Your task to perform on an android device: Search for vegetarian restaurants on Maps Image 0: 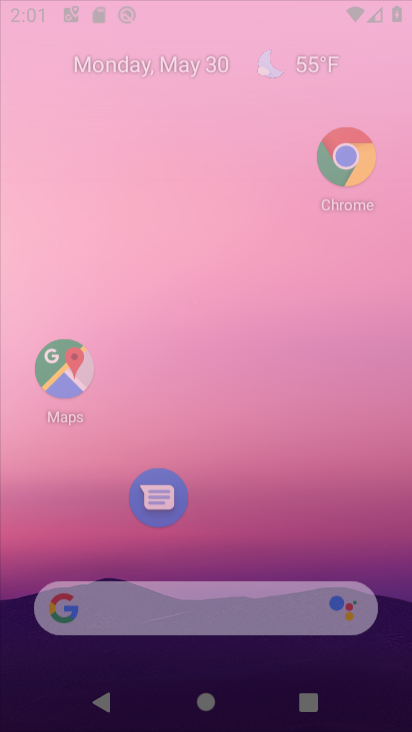
Step 0: click (223, 204)
Your task to perform on an android device: Search for vegetarian restaurants on Maps Image 1: 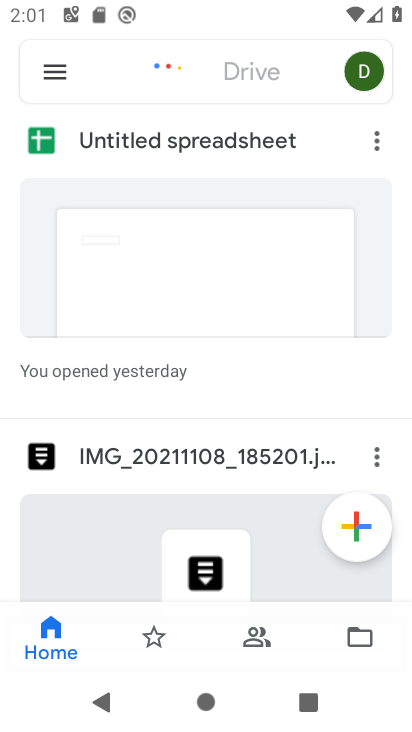
Step 1: press home button
Your task to perform on an android device: Search for vegetarian restaurants on Maps Image 2: 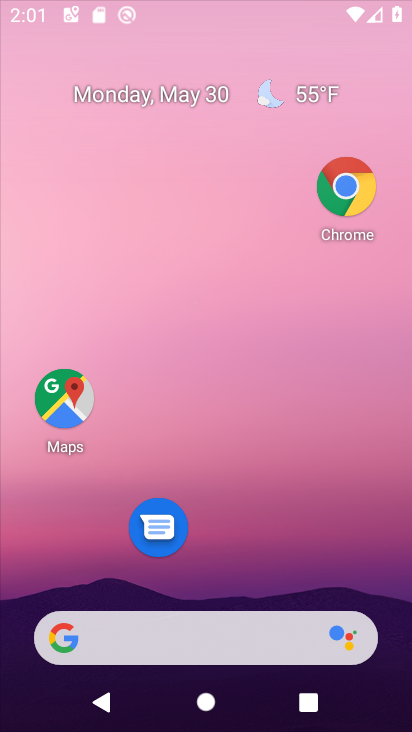
Step 2: drag from (282, 537) to (300, 102)
Your task to perform on an android device: Search for vegetarian restaurants on Maps Image 3: 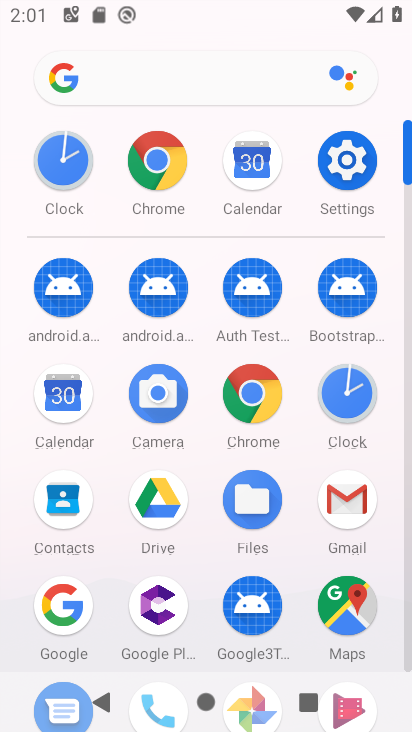
Step 3: click (338, 605)
Your task to perform on an android device: Search for vegetarian restaurants on Maps Image 4: 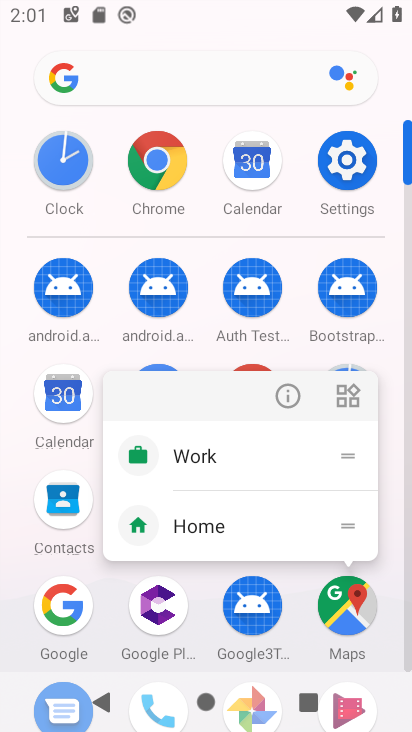
Step 4: click (282, 392)
Your task to perform on an android device: Search for vegetarian restaurants on Maps Image 5: 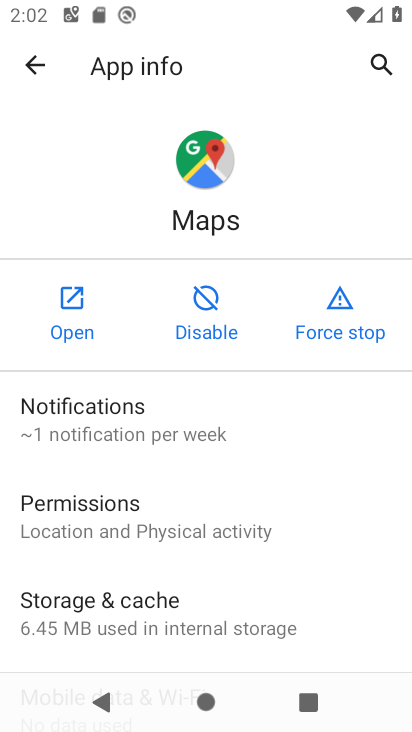
Step 5: click (88, 304)
Your task to perform on an android device: Search for vegetarian restaurants on Maps Image 6: 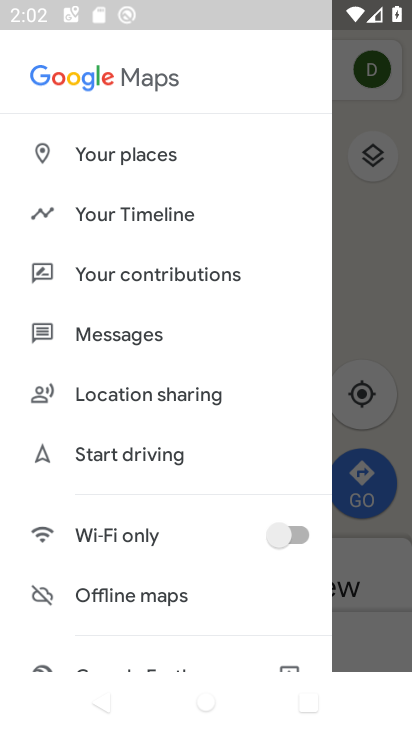
Step 6: drag from (135, 569) to (198, 45)
Your task to perform on an android device: Search for vegetarian restaurants on Maps Image 7: 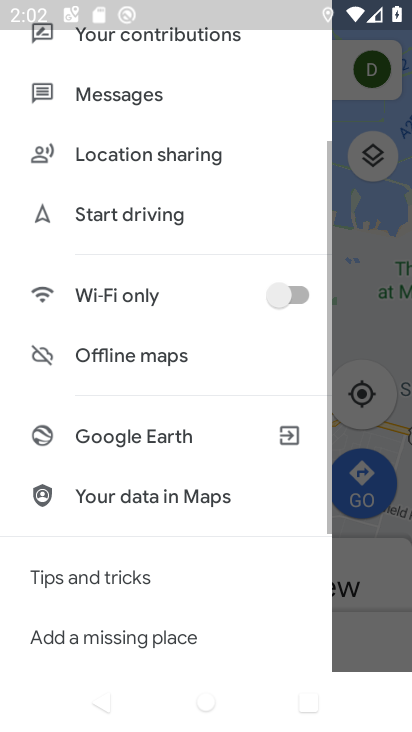
Step 7: drag from (146, 547) to (205, 207)
Your task to perform on an android device: Search for vegetarian restaurants on Maps Image 8: 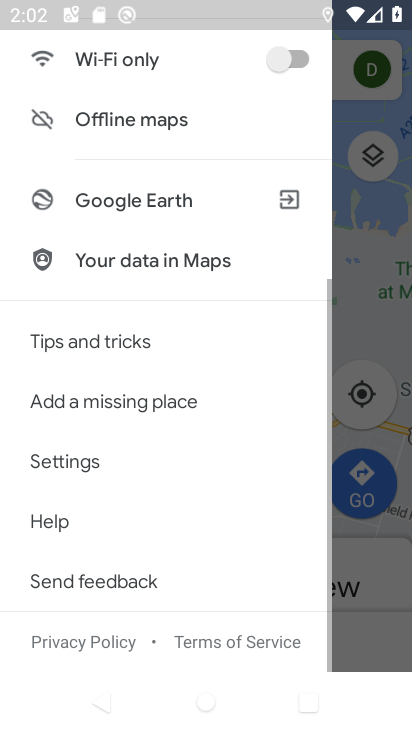
Step 8: drag from (153, 499) to (189, 167)
Your task to perform on an android device: Search for vegetarian restaurants on Maps Image 9: 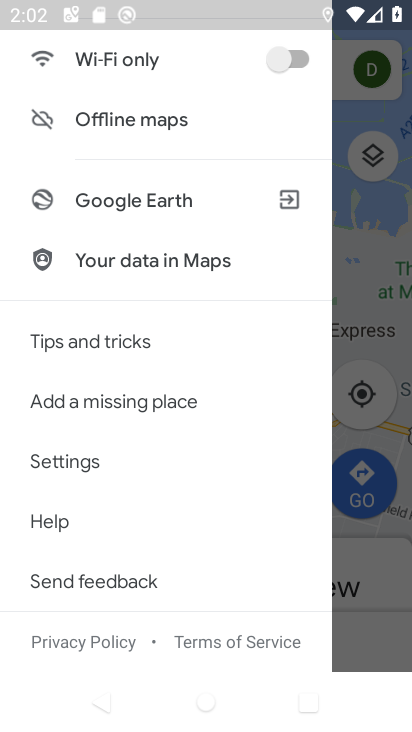
Step 9: click (364, 258)
Your task to perform on an android device: Search for vegetarian restaurants on Maps Image 10: 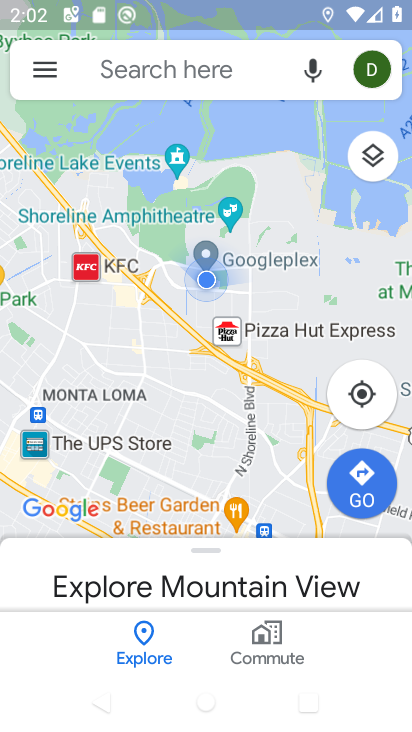
Step 10: click (162, 66)
Your task to perform on an android device: Search for vegetarian restaurants on Maps Image 11: 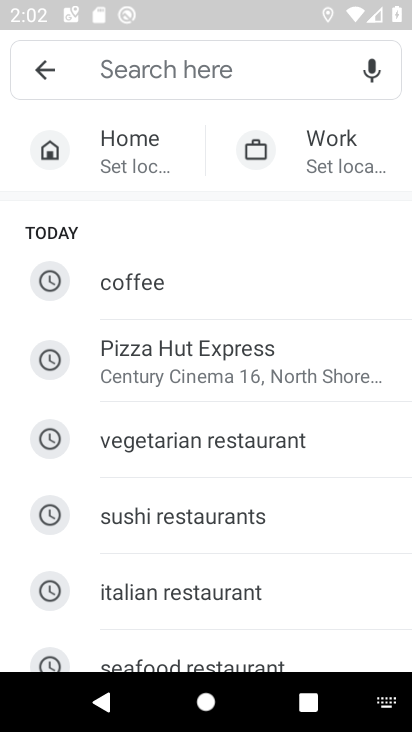
Step 11: drag from (203, 577) to (209, 227)
Your task to perform on an android device: Search for vegetarian restaurants on Maps Image 12: 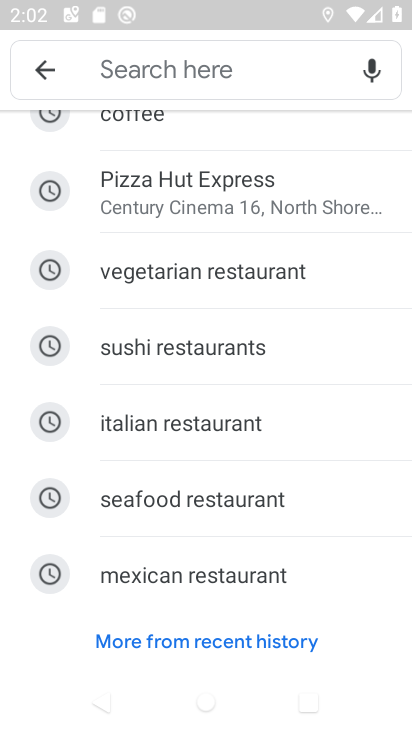
Step 12: click (145, 287)
Your task to perform on an android device: Search for vegetarian restaurants on Maps Image 13: 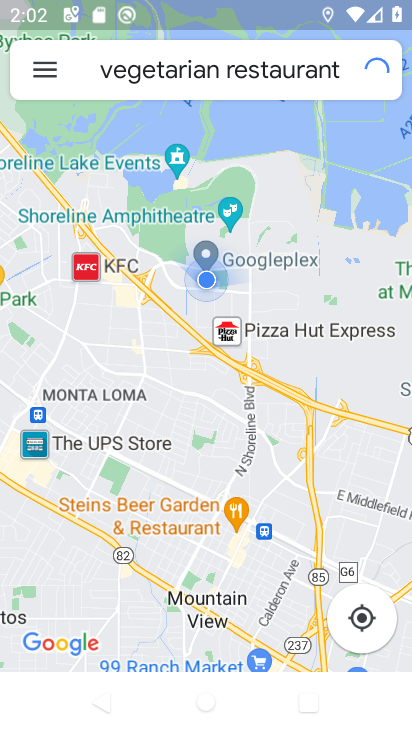
Step 13: task complete